Your task to perform on an android device: Search for vegetarian restaurants on Maps Image 0: 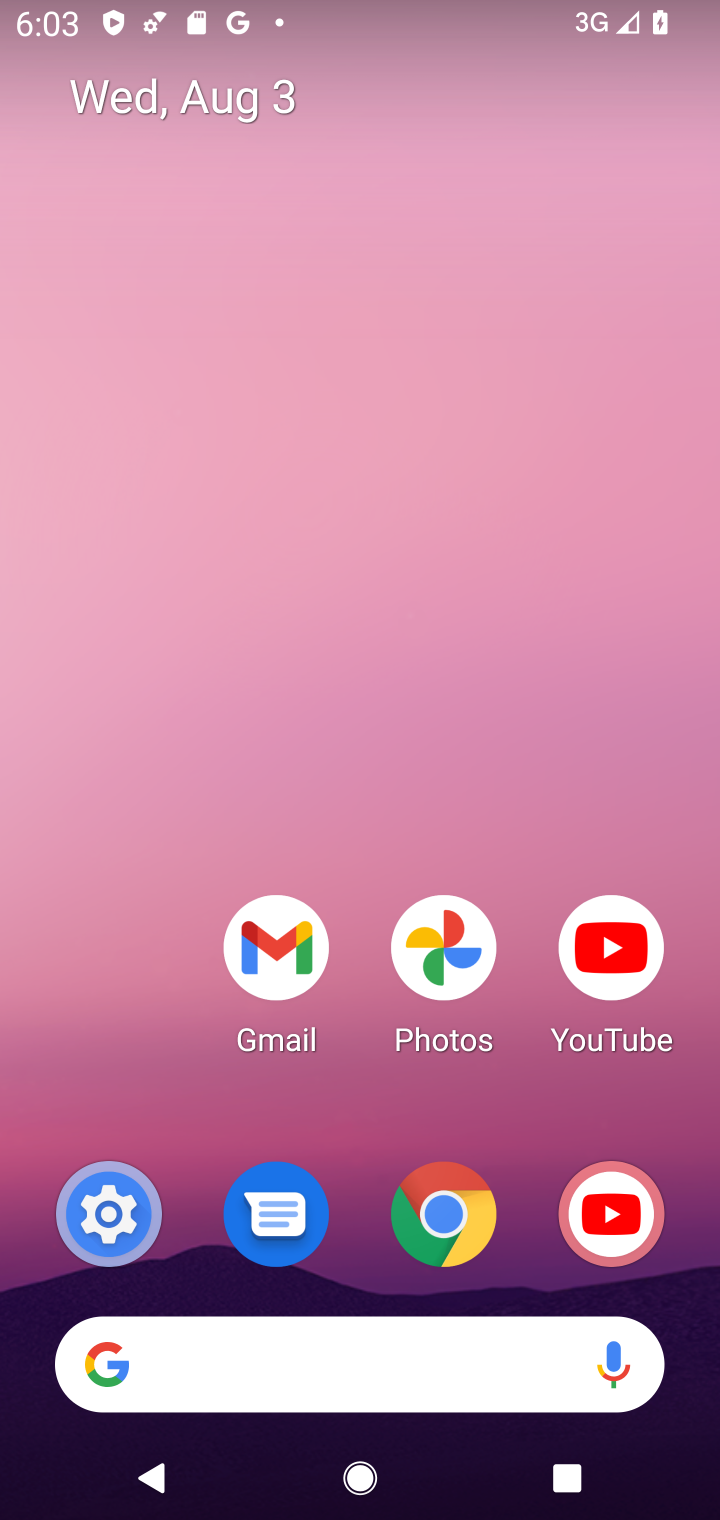
Step 0: drag from (335, 1081) to (329, 312)
Your task to perform on an android device: Search for vegetarian restaurants on Maps Image 1: 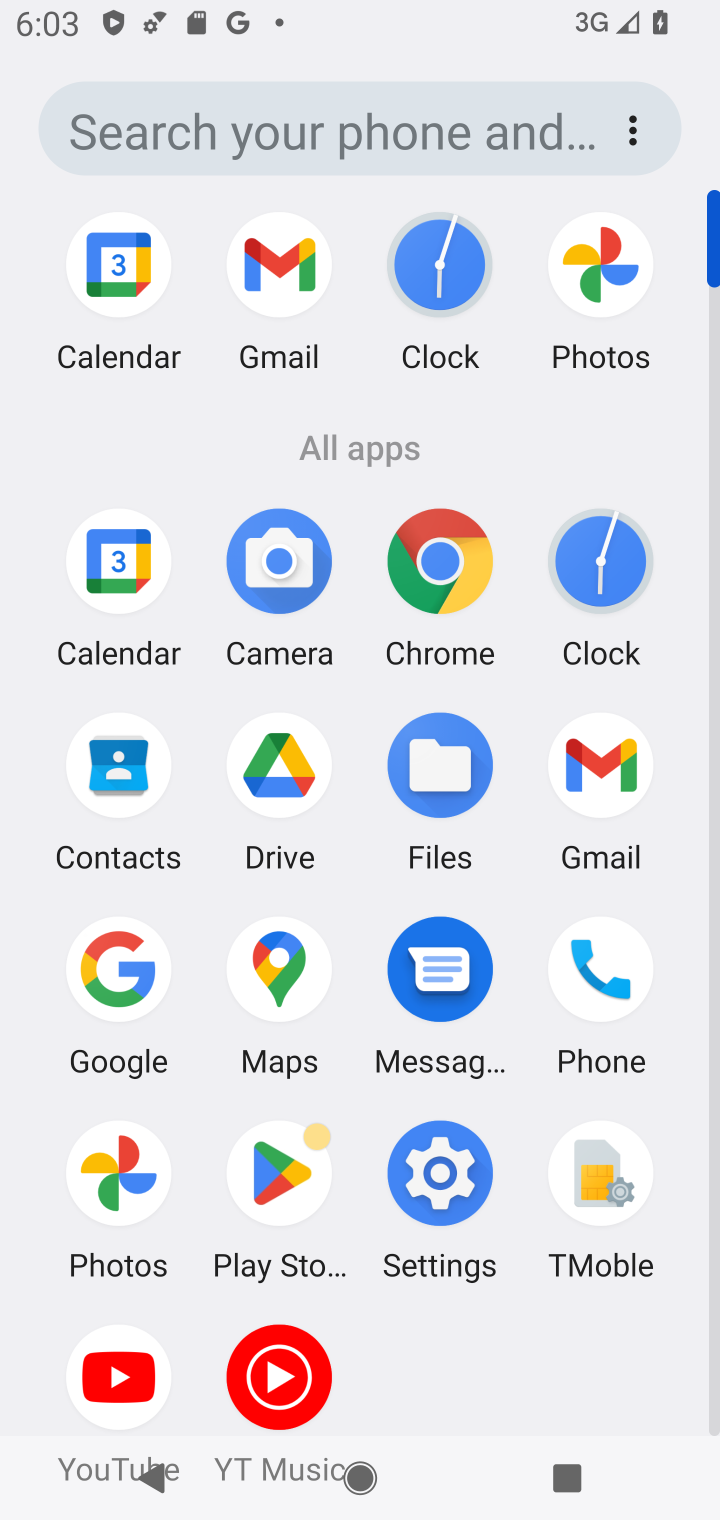
Step 1: click (276, 944)
Your task to perform on an android device: Search for vegetarian restaurants on Maps Image 2: 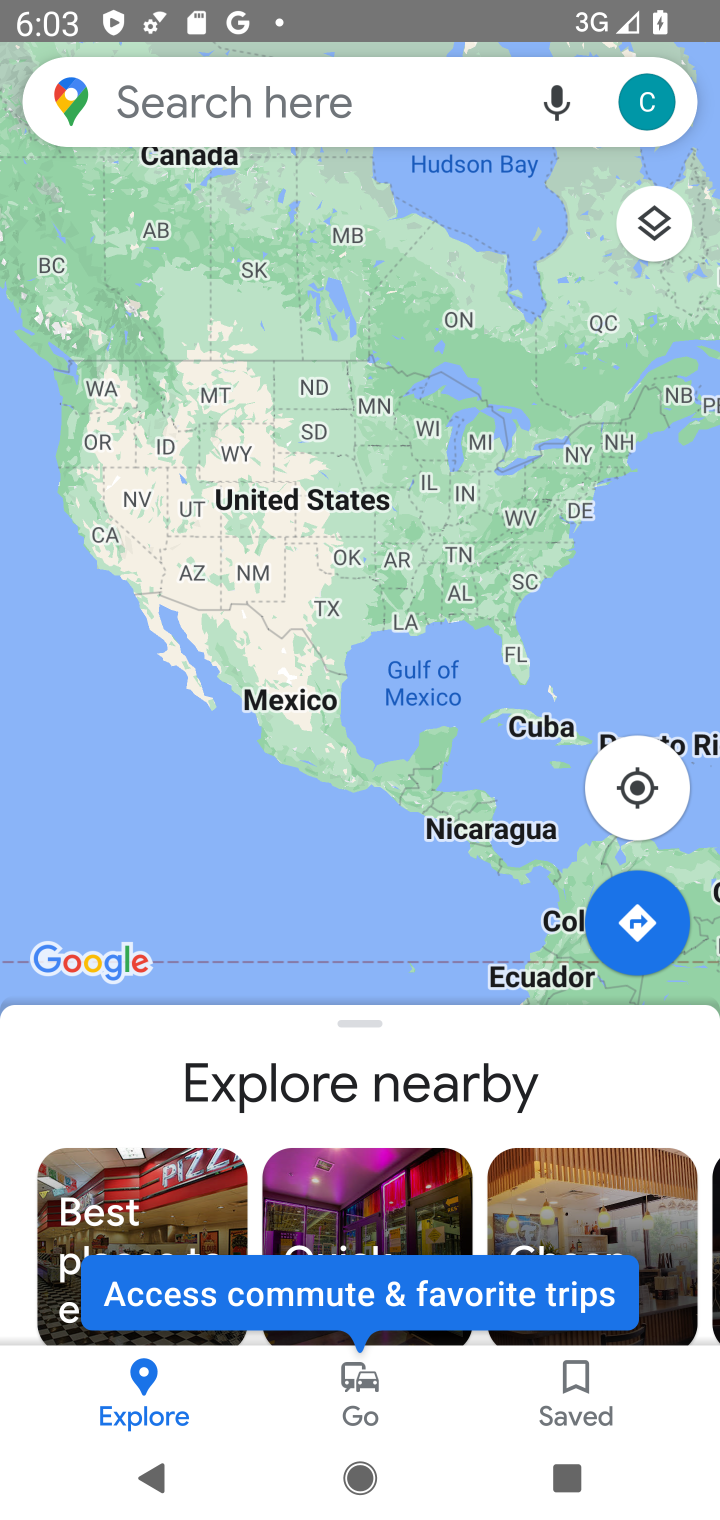
Step 2: click (253, 121)
Your task to perform on an android device: Search for vegetarian restaurants on Maps Image 3: 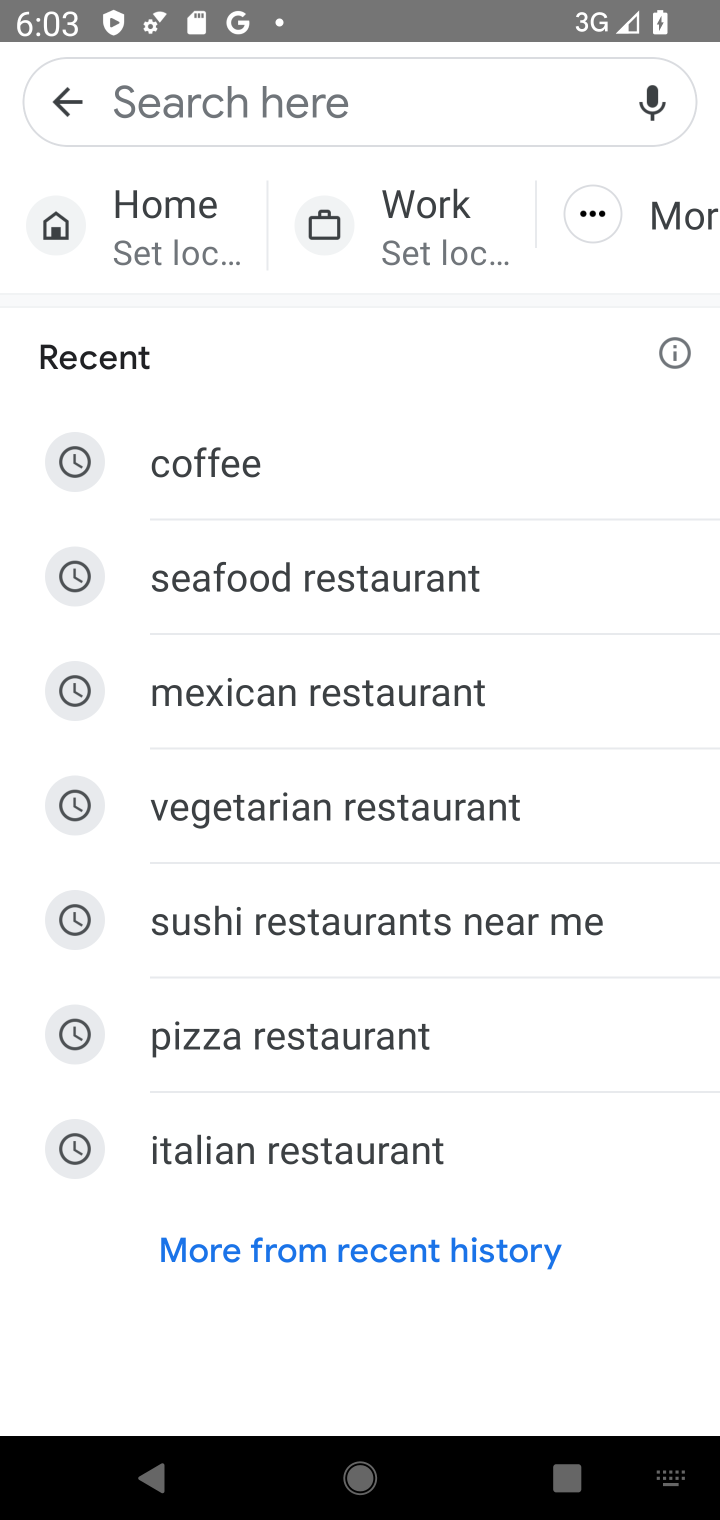
Step 3: type "vegetarian restaurants"
Your task to perform on an android device: Search for vegetarian restaurants on Maps Image 4: 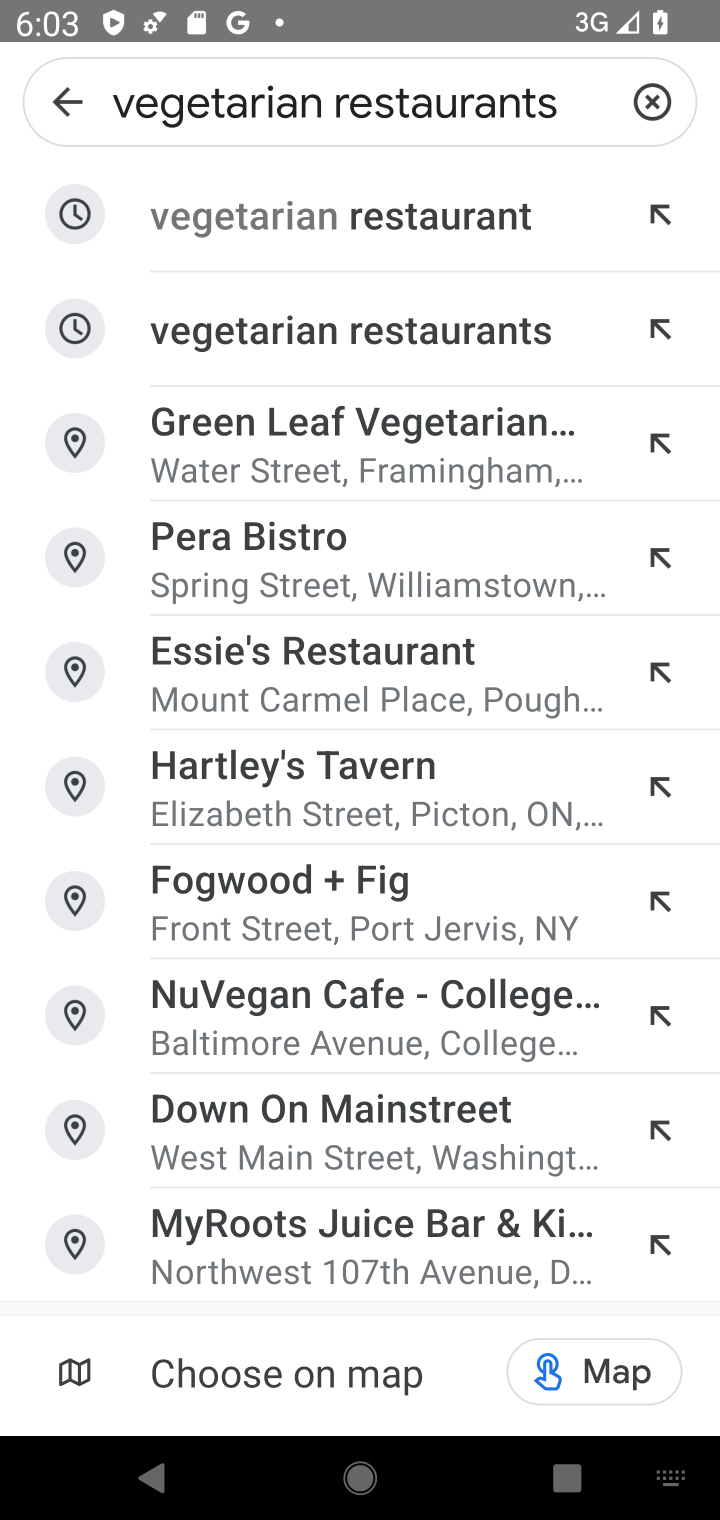
Step 4: click (496, 321)
Your task to perform on an android device: Search for vegetarian restaurants on Maps Image 5: 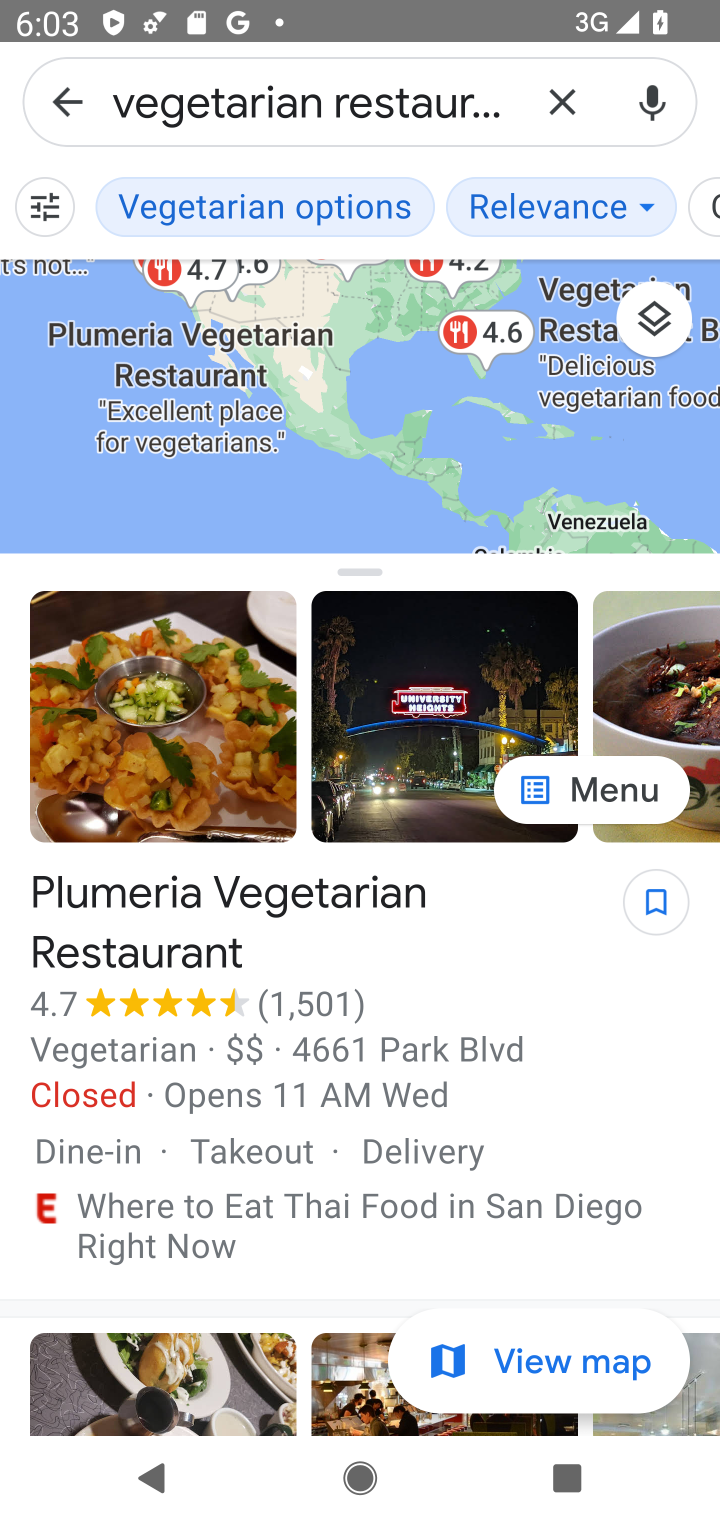
Step 5: task complete